Your task to perform on an android device: Find coffee shops on Maps Image 0: 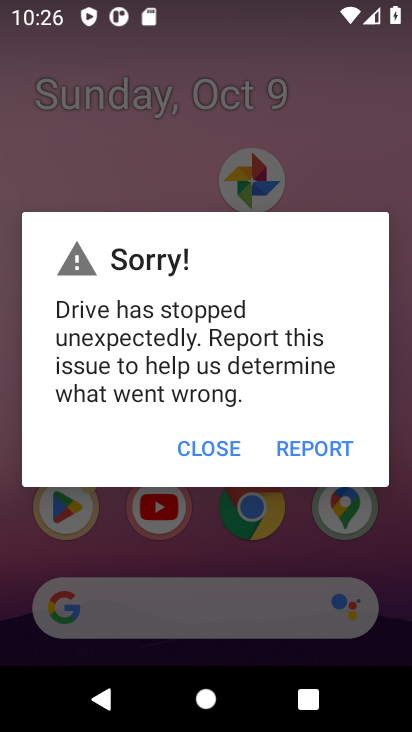
Step 0: press home button
Your task to perform on an android device: Find coffee shops on Maps Image 1: 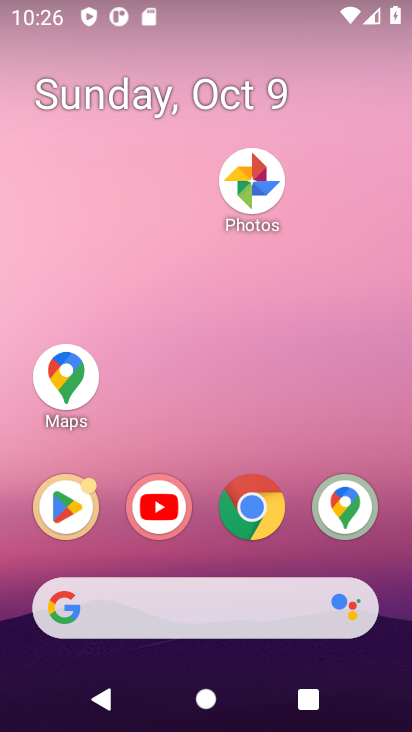
Step 1: drag from (206, 552) to (214, 6)
Your task to perform on an android device: Find coffee shops on Maps Image 2: 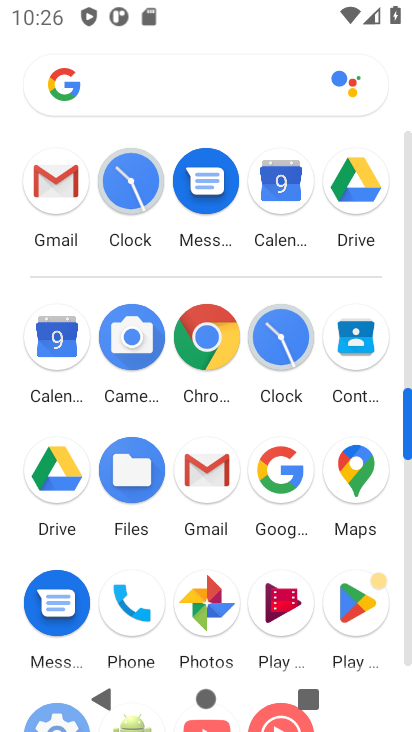
Step 2: click (365, 462)
Your task to perform on an android device: Find coffee shops on Maps Image 3: 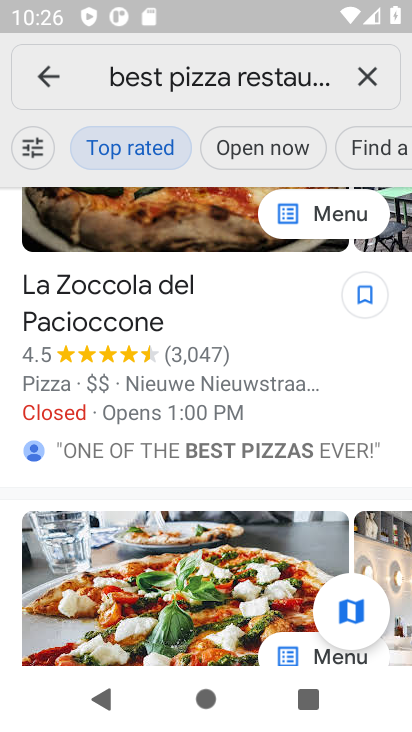
Step 3: click (238, 79)
Your task to perform on an android device: Find coffee shops on Maps Image 4: 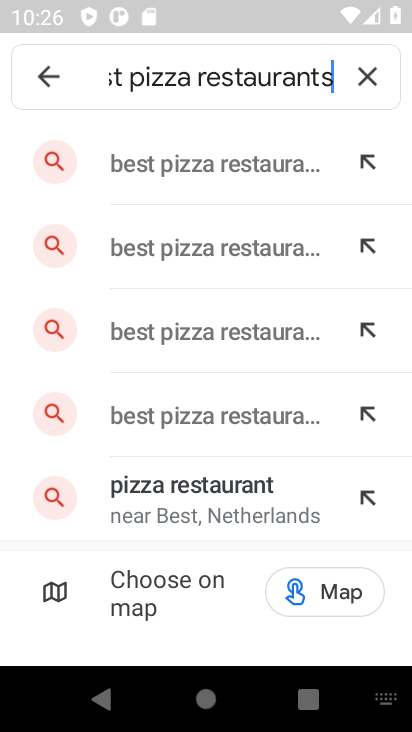
Step 4: click (362, 74)
Your task to perform on an android device: Find coffee shops on Maps Image 5: 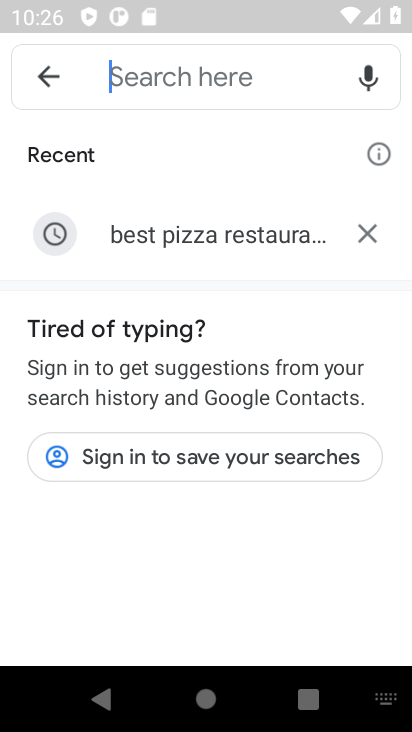
Step 5: type "coffee shops"
Your task to perform on an android device: Find coffee shops on Maps Image 6: 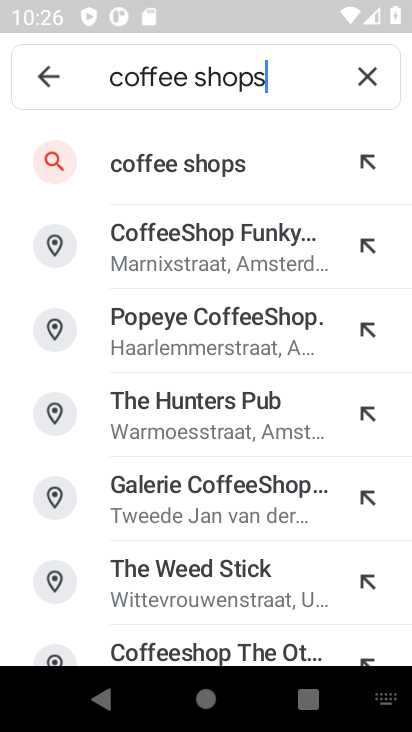
Step 6: press enter
Your task to perform on an android device: Find coffee shops on Maps Image 7: 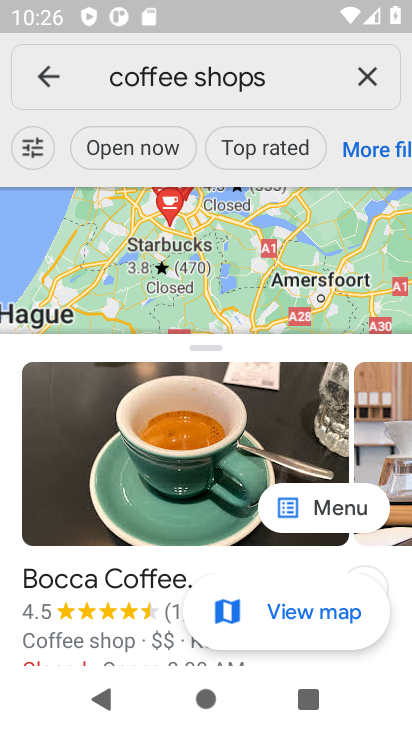
Step 7: task complete